Your task to perform on an android device: View the shopping cart on ebay.com. Add "panasonic triple a" to the cart on ebay.com Image 0: 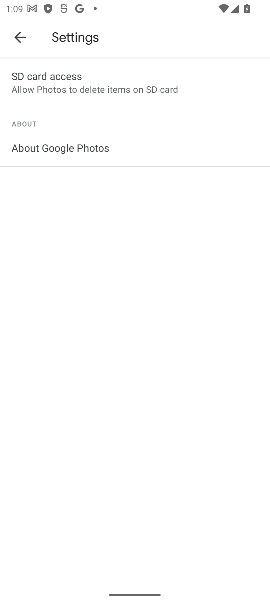
Step 0: press home button
Your task to perform on an android device: View the shopping cart on ebay.com. Add "panasonic triple a" to the cart on ebay.com Image 1: 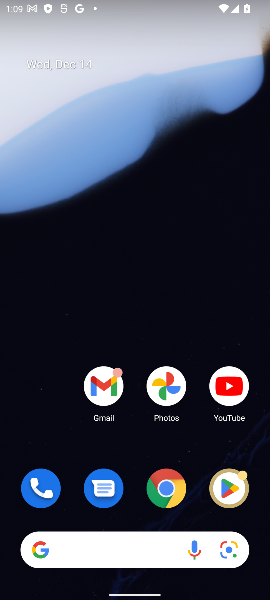
Step 1: drag from (113, 510) to (86, 91)
Your task to perform on an android device: View the shopping cart on ebay.com. Add "panasonic triple a" to the cart on ebay.com Image 2: 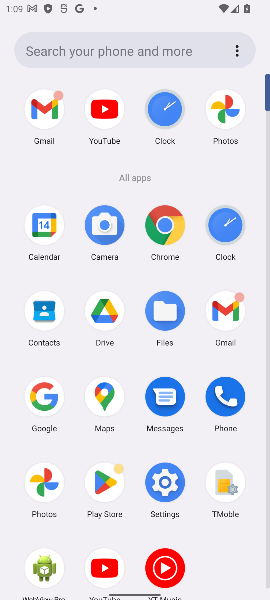
Step 2: click (43, 399)
Your task to perform on an android device: View the shopping cart on ebay.com. Add "panasonic triple a" to the cart on ebay.com Image 3: 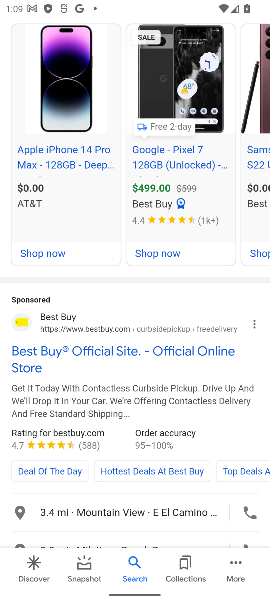
Step 3: drag from (105, 103) to (142, 374)
Your task to perform on an android device: View the shopping cart on ebay.com. Add "panasonic triple a" to the cart on ebay.com Image 4: 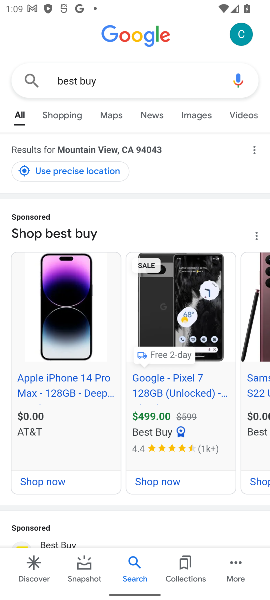
Step 4: click (100, 87)
Your task to perform on an android device: View the shopping cart on ebay.com. Add "panasonic triple a" to the cart on ebay.com Image 5: 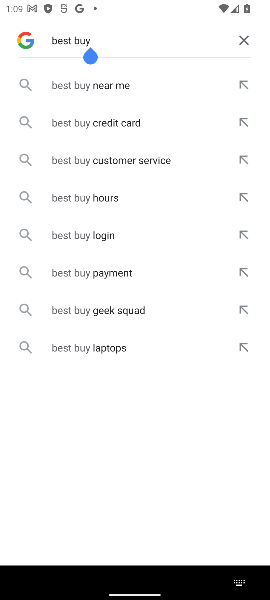
Step 5: click (251, 43)
Your task to perform on an android device: View the shopping cart on ebay.com. Add "panasonic triple a" to the cart on ebay.com Image 6: 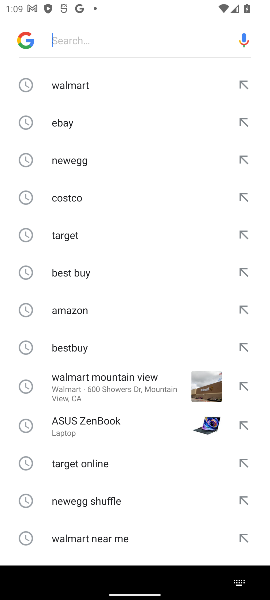
Step 6: click (61, 123)
Your task to perform on an android device: View the shopping cart on ebay.com. Add "panasonic triple a" to the cart on ebay.com Image 7: 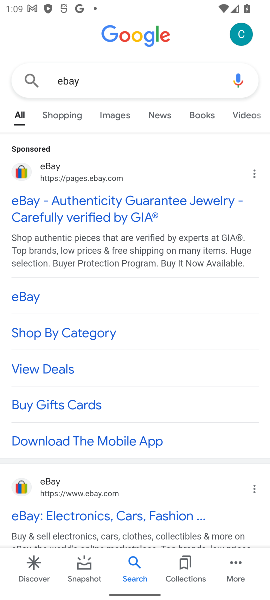
Step 7: click (91, 214)
Your task to perform on an android device: View the shopping cart on ebay.com. Add "panasonic triple a" to the cart on ebay.com Image 8: 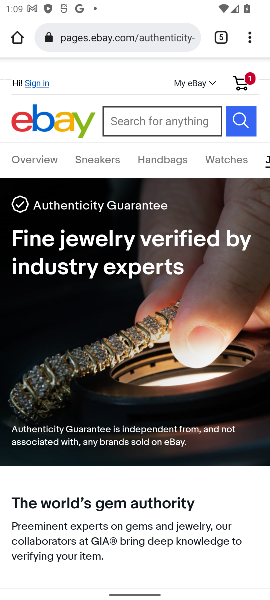
Step 8: click (138, 122)
Your task to perform on an android device: View the shopping cart on ebay.com. Add "panasonic triple a" to the cart on ebay.com Image 9: 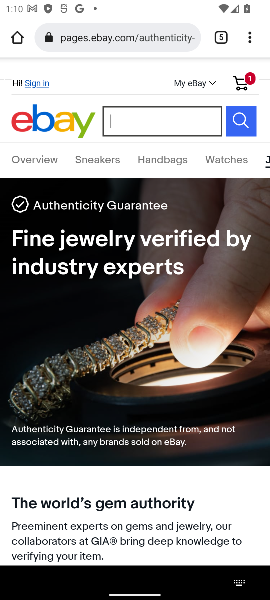
Step 9: click (239, 80)
Your task to perform on an android device: View the shopping cart on ebay.com. Add "panasonic triple a" to the cart on ebay.com Image 10: 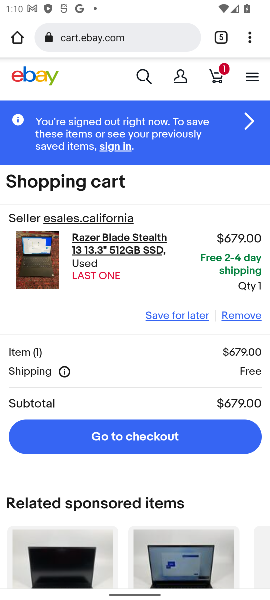
Step 10: click (149, 76)
Your task to perform on an android device: View the shopping cart on ebay.com. Add "panasonic triple a" to the cart on ebay.com Image 11: 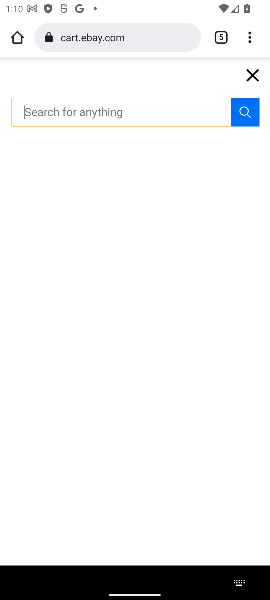
Step 11: type "panasonic triple a"
Your task to perform on an android device: View the shopping cart on ebay.com. Add "panasonic triple a" to the cart on ebay.com Image 12: 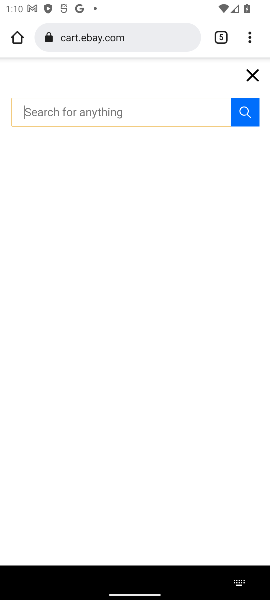
Step 12: click (242, 112)
Your task to perform on an android device: View the shopping cart on ebay.com. Add "panasonic triple a" to the cart on ebay.com Image 13: 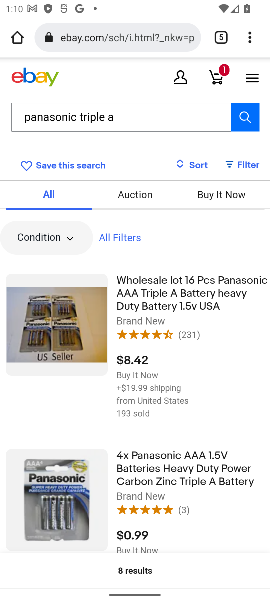
Step 13: click (157, 294)
Your task to perform on an android device: View the shopping cart on ebay.com. Add "panasonic triple a" to the cart on ebay.com Image 14: 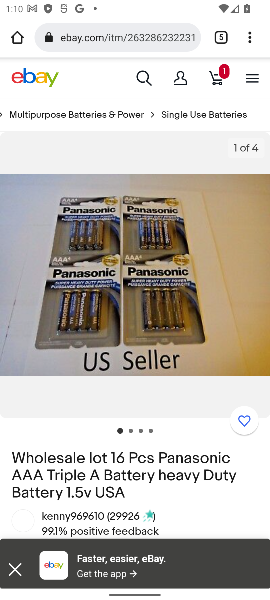
Step 14: drag from (227, 526) to (228, 212)
Your task to perform on an android device: View the shopping cart on ebay.com. Add "panasonic triple a" to the cart on ebay.com Image 15: 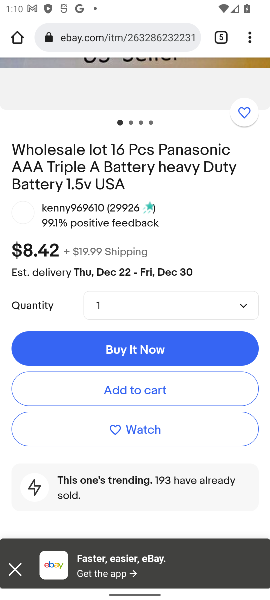
Step 15: click (146, 387)
Your task to perform on an android device: View the shopping cart on ebay.com. Add "panasonic triple a" to the cart on ebay.com Image 16: 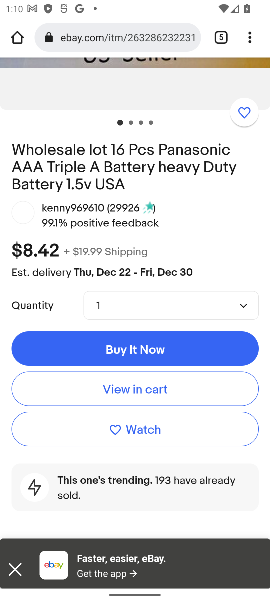
Step 16: click (138, 389)
Your task to perform on an android device: View the shopping cart on ebay.com. Add "panasonic triple a" to the cart on ebay.com Image 17: 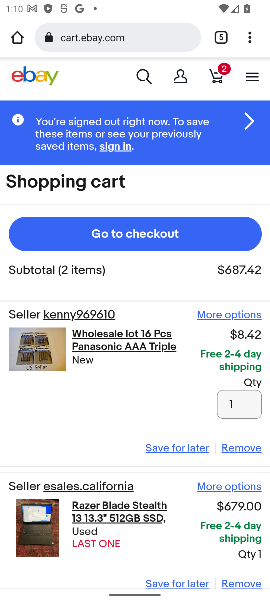
Step 17: task complete